Your task to perform on an android device: turn off location history Image 0: 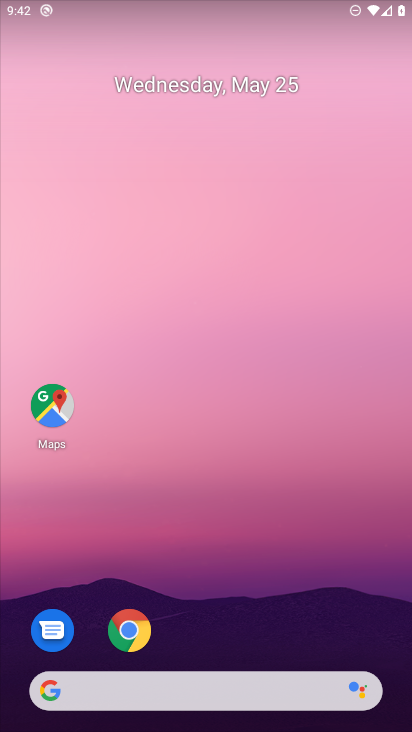
Step 0: drag from (194, 665) to (238, 188)
Your task to perform on an android device: turn off location history Image 1: 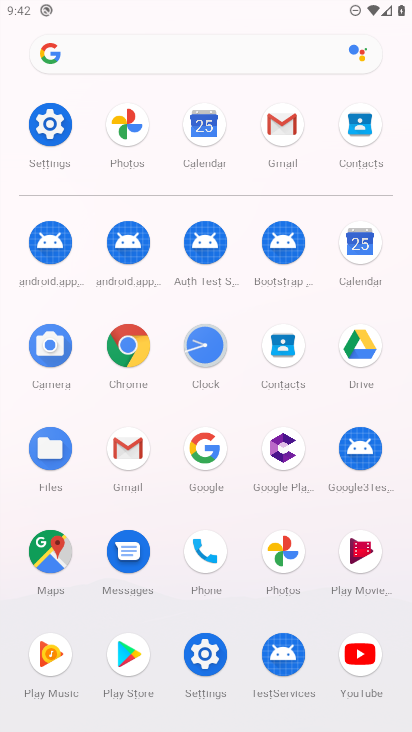
Step 1: click (203, 654)
Your task to perform on an android device: turn off location history Image 2: 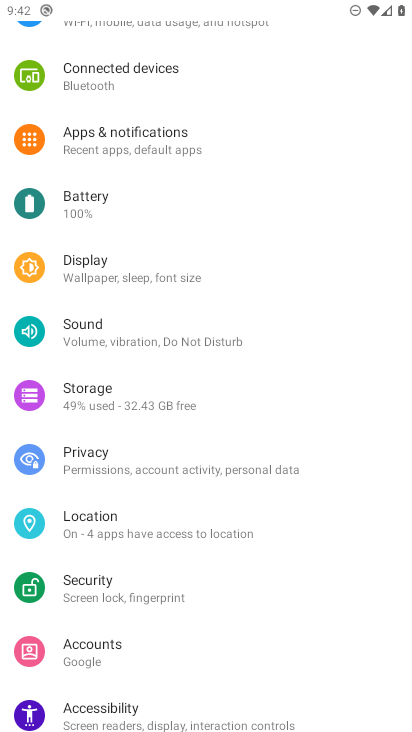
Step 2: click (135, 528)
Your task to perform on an android device: turn off location history Image 3: 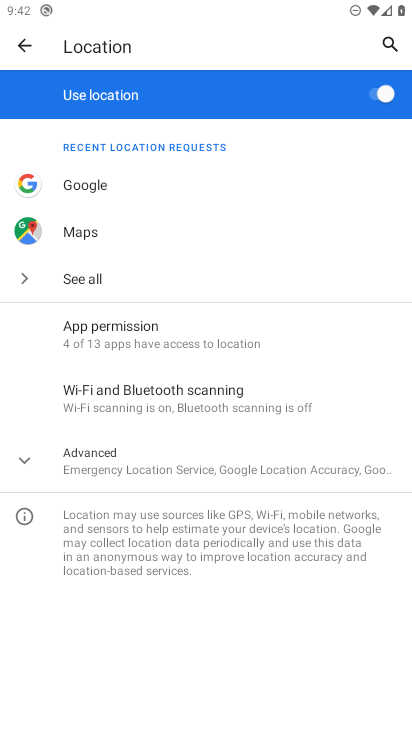
Step 3: click (157, 453)
Your task to perform on an android device: turn off location history Image 4: 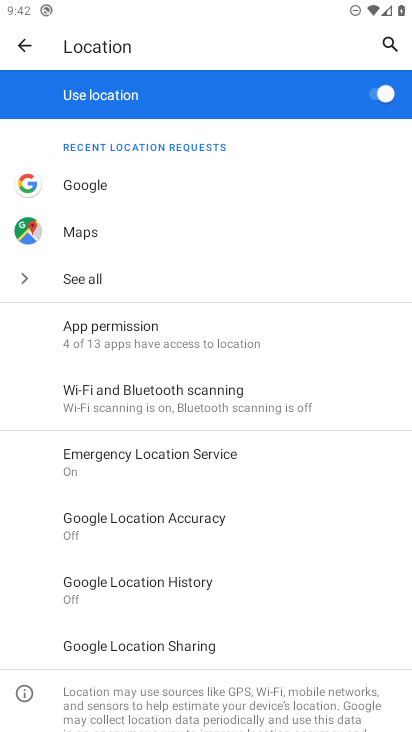
Step 4: click (164, 570)
Your task to perform on an android device: turn off location history Image 5: 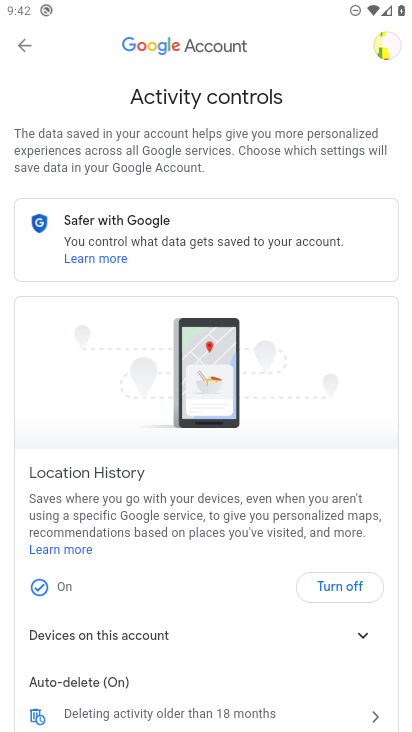
Step 5: click (346, 588)
Your task to perform on an android device: turn off location history Image 6: 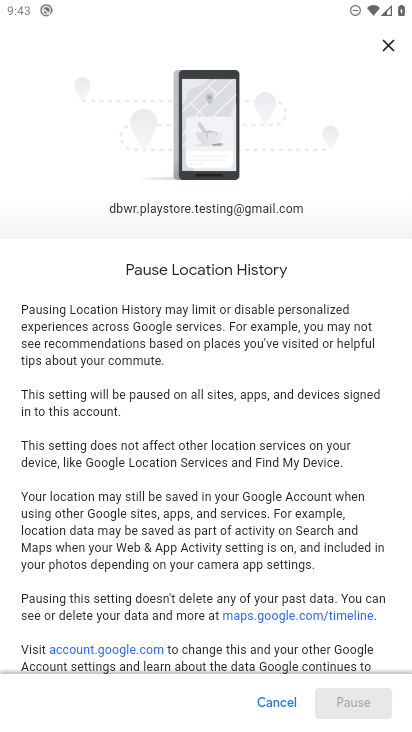
Step 6: drag from (337, 610) to (339, 258)
Your task to perform on an android device: turn off location history Image 7: 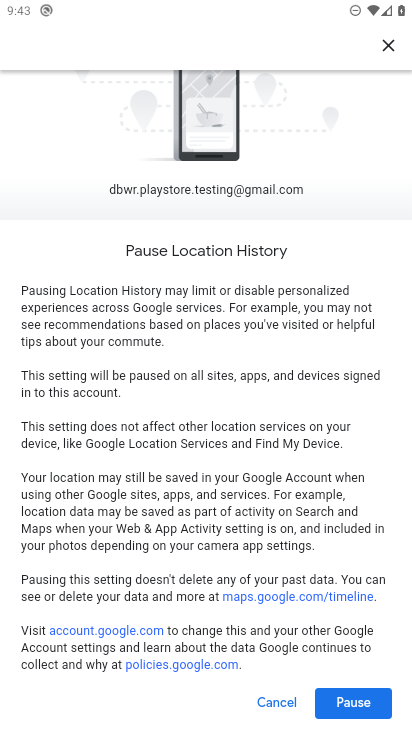
Step 7: click (368, 705)
Your task to perform on an android device: turn off location history Image 8: 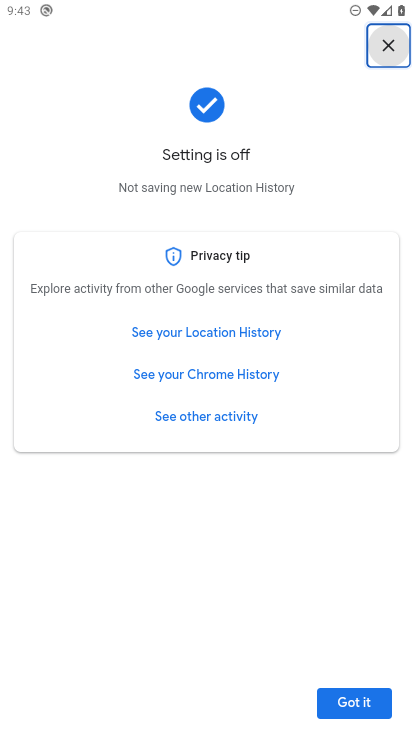
Step 8: click (356, 696)
Your task to perform on an android device: turn off location history Image 9: 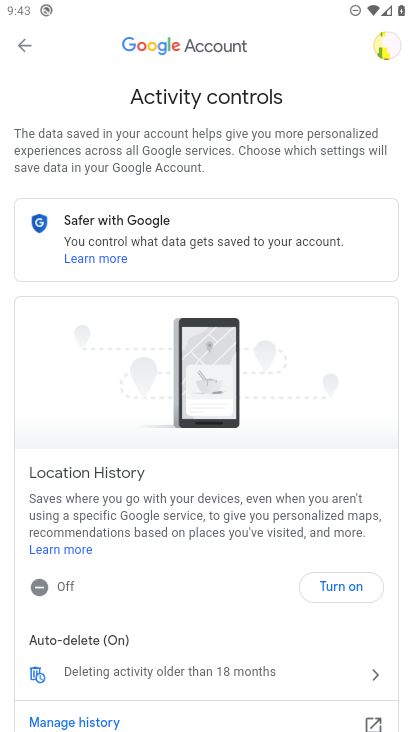
Step 9: task complete